Your task to perform on an android device: turn smart compose on in the gmail app Image 0: 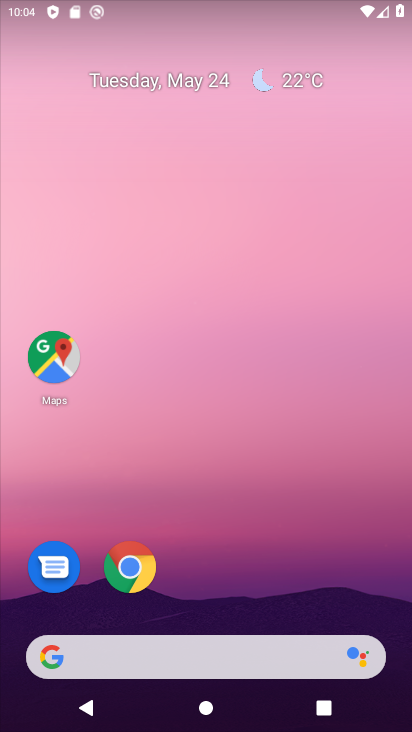
Step 0: drag from (266, 629) to (259, 9)
Your task to perform on an android device: turn smart compose on in the gmail app Image 1: 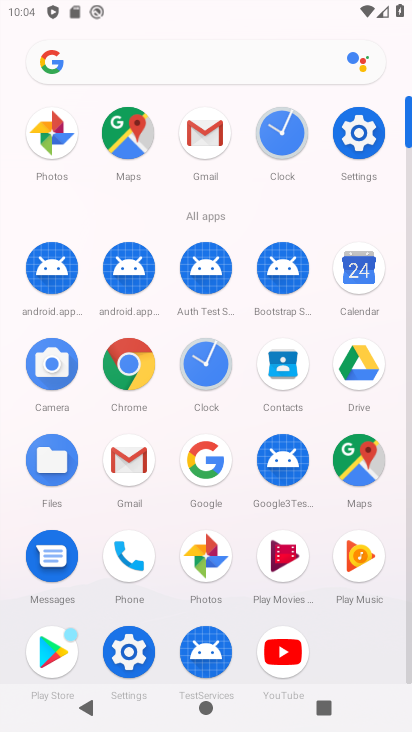
Step 1: click (129, 470)
Your task to perform on an android device: turn smart compose on in the gmail app Image 2: 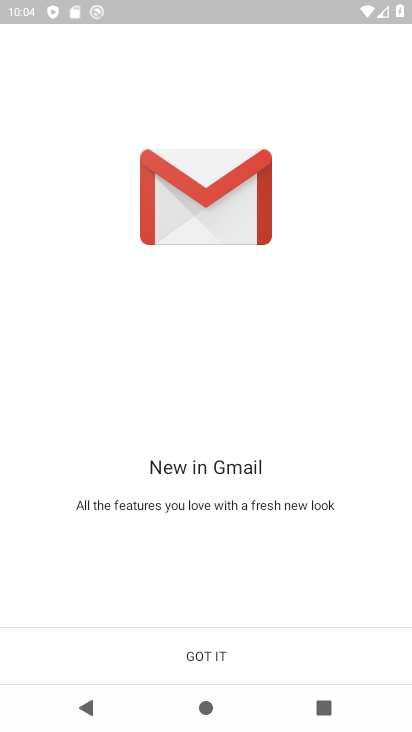
Step 2: click (214, 645)
Your task to perform on an android device: turn smart compose on in the gmail app Image 3: 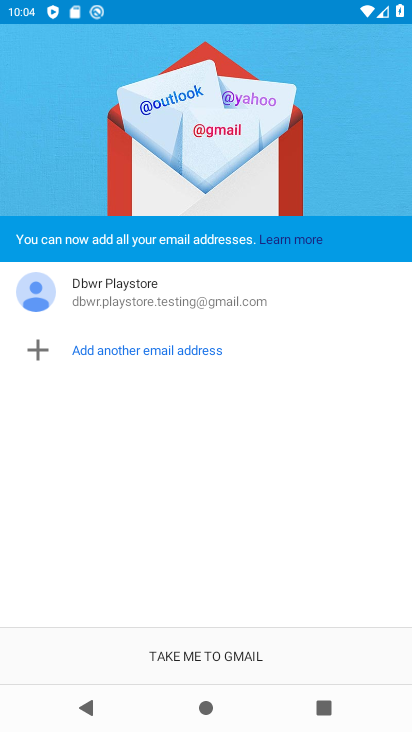
Step 3: click (246, 669)
Your task to perform on an android device: turn smart compose on in the gmail app Image 4: 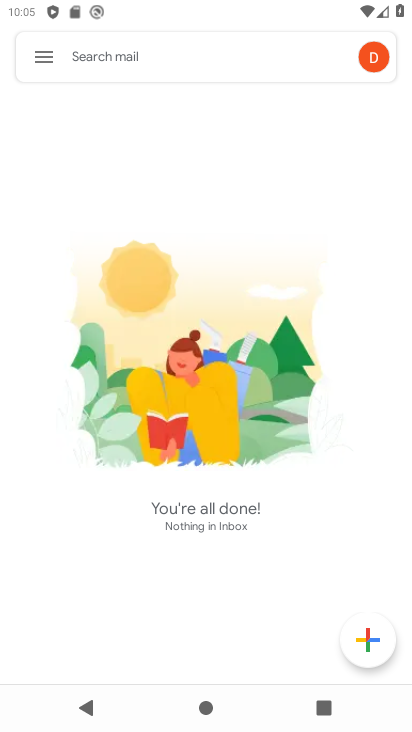
Step 4: click (40, 50)
Your task to perform on an android device: turn smart compose on in the gmail app Image 5: 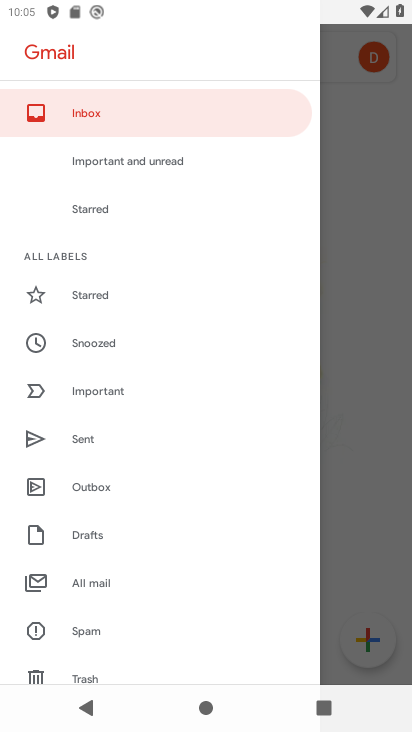
Step 5: drag from (168, 594) to (160, 78)
Your task to perform on an android device: turn smart compose on in the gmail app Image 6: 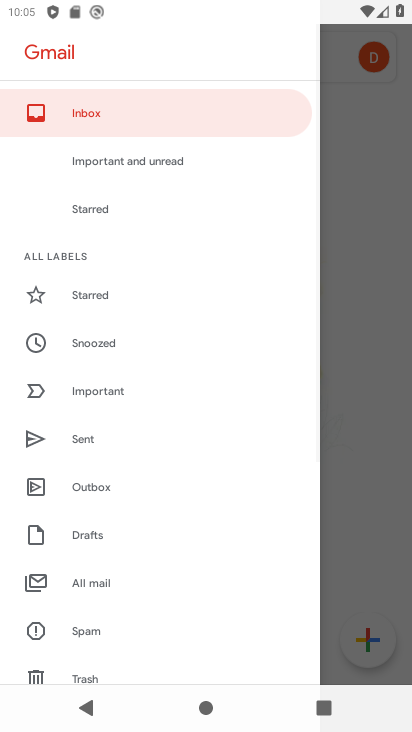
Step 6: drag from (152, 602) to (188, 238)
Your task to perform on an android device: turn smart compose on in the gmail app Image 7: 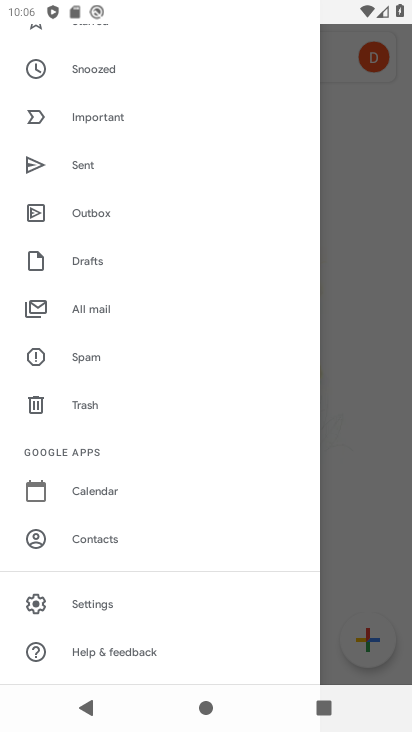
Step 7: click (111, 605)
Your task to perform on an android device: turn smart compose on in the gmail app Image 8: 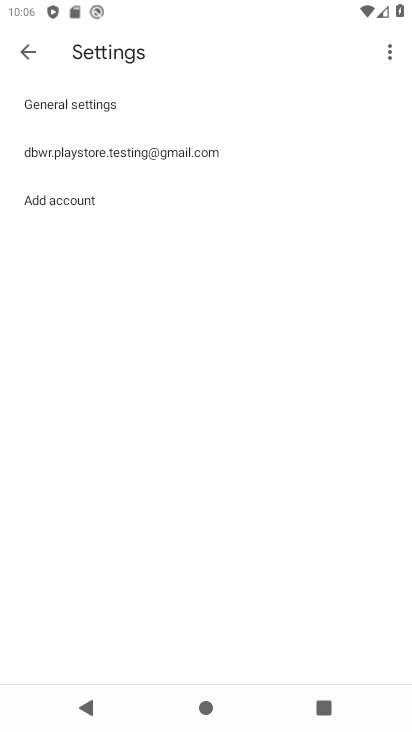
Step 8: click (78, 151)
Your task to perform on an android device: turn smart compose on in the gmail app Image 9: 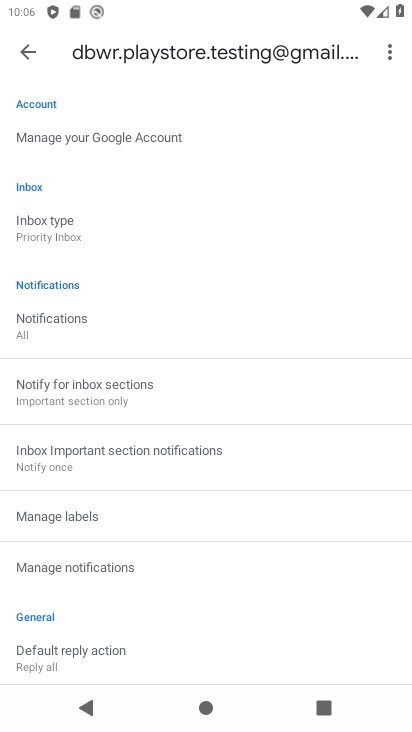
Step 9: task complete